Your task to perform on an android device: Empty the shopping cart on newegg. Add "beats solo 3" to the cart on newegg Image 0: 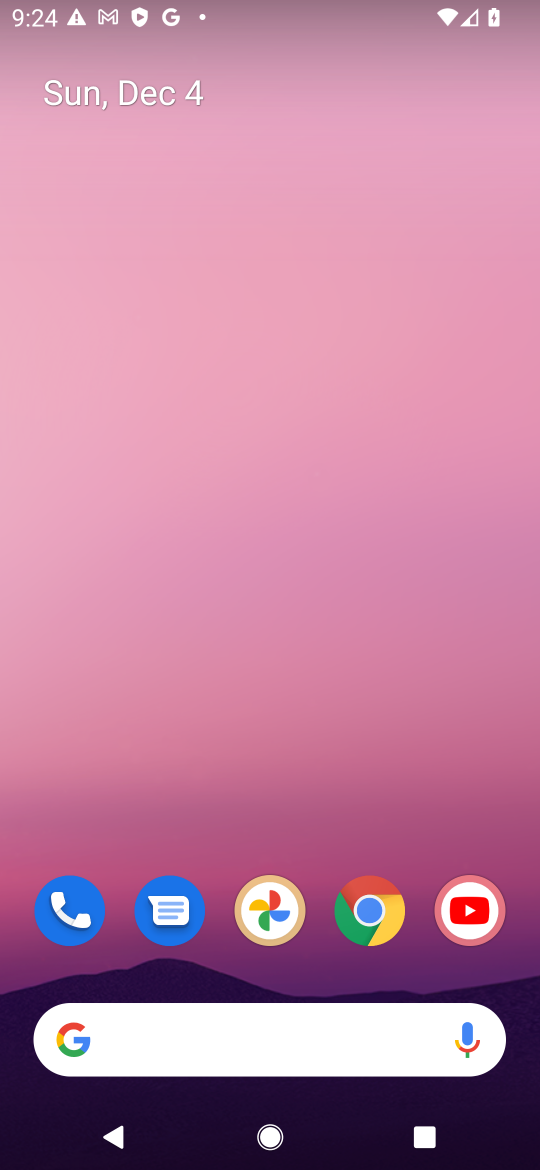
Step 0: drag from (268, 698) to (347, 70)
Your task to perform on an android device: Empty the shopping cart on newegg. Add "beats solo 3" to the cart on newegg Image 1: 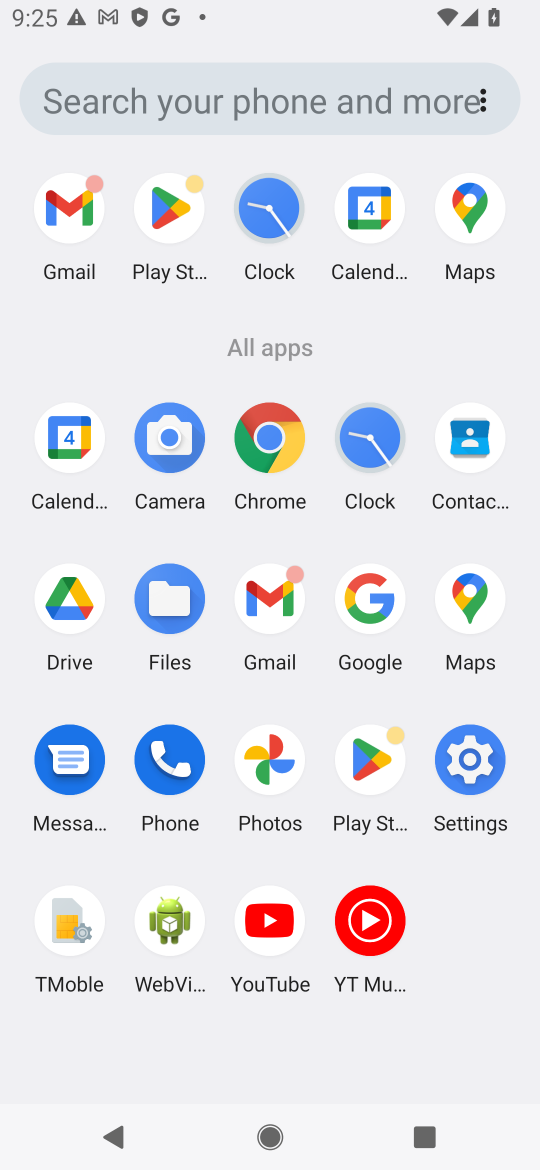
Step 1: click (275, 433)
Your task to perform on an android device: Empty the shopping cart on newegg. Add "beats solo 3" to the cart on newegg Image 2: 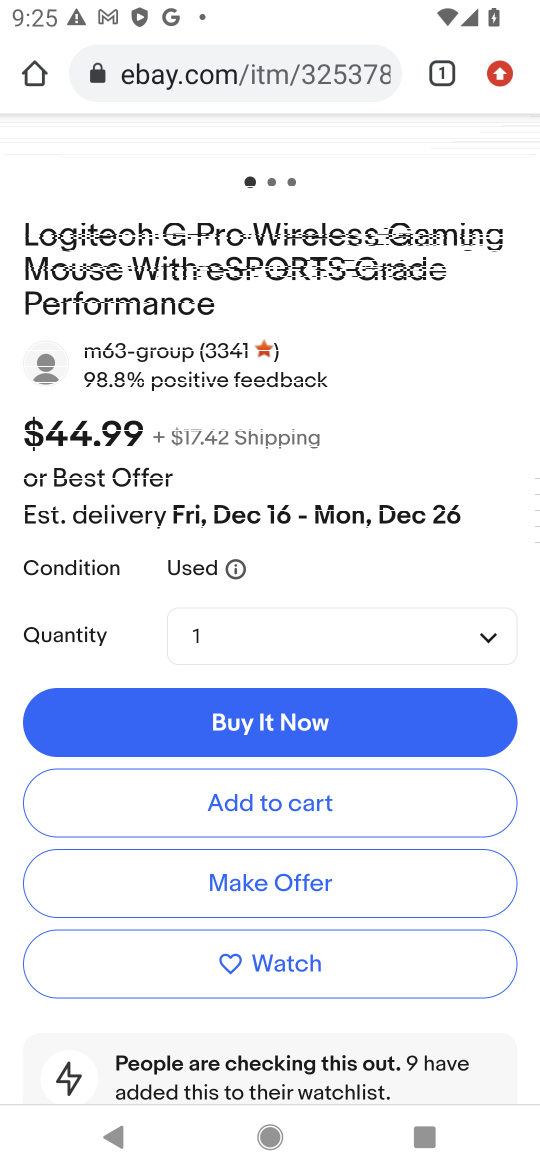
Step 2: click (178, 76)
Your task to perform on an android device: Empty the shopping cart on newegg. Add "beats solo 3" to the cart on newegg Image 3: 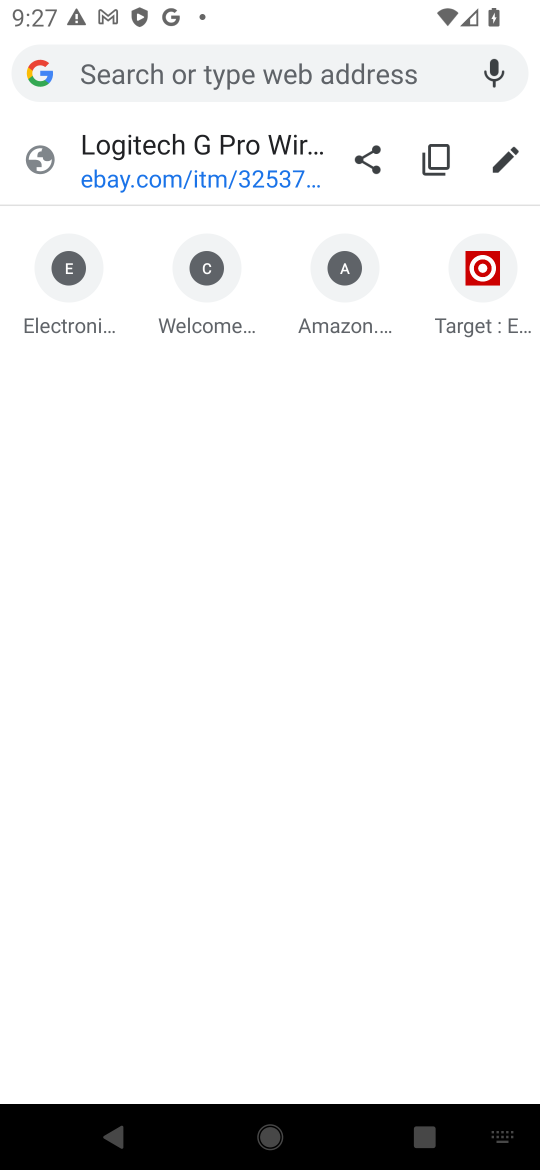
Step 3: type " newegg"
Your task to perform on an android device: Empty the shopping cart on newegg. Add "beats solo 3" to the cart on newegg Image 4: 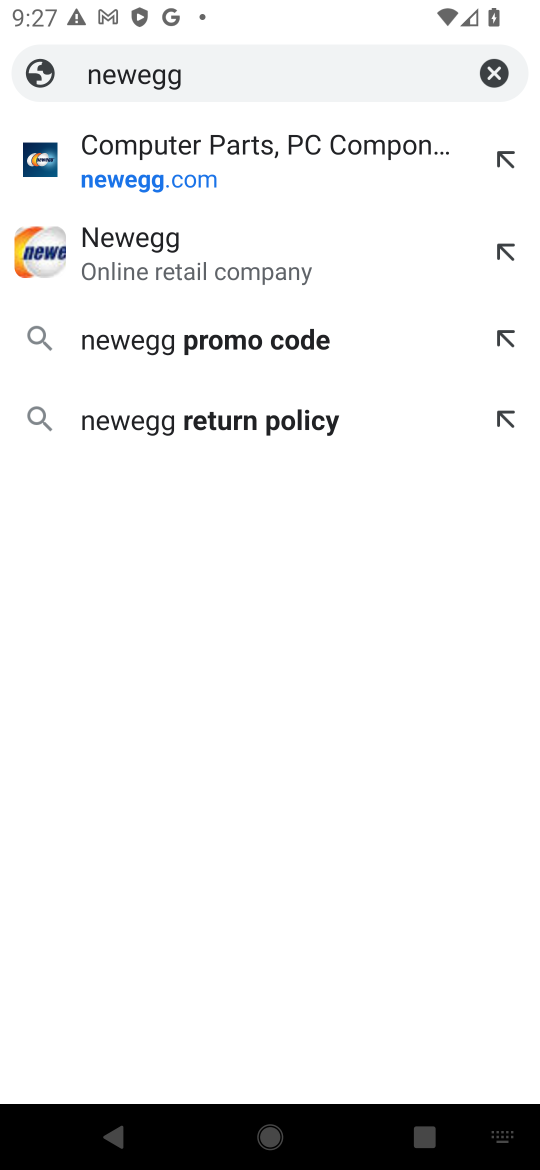
Step 4: click (146, 178)
Your task to perform on an android device: Empty the shopping cart on newegg. Add "beats solo 3" to the cart on newegg Image 5: 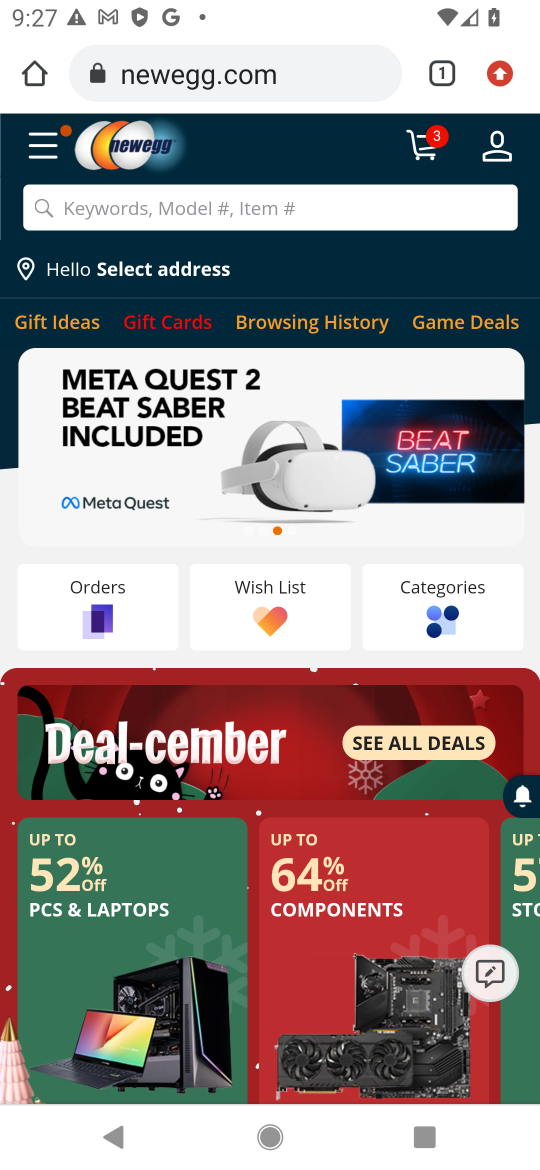
Step 5: type "beats solo 3"
Your task to perform on an android device: Empty the shopping cart on newegg. Add "beats solo 3" to the cart on newegg Image 6: 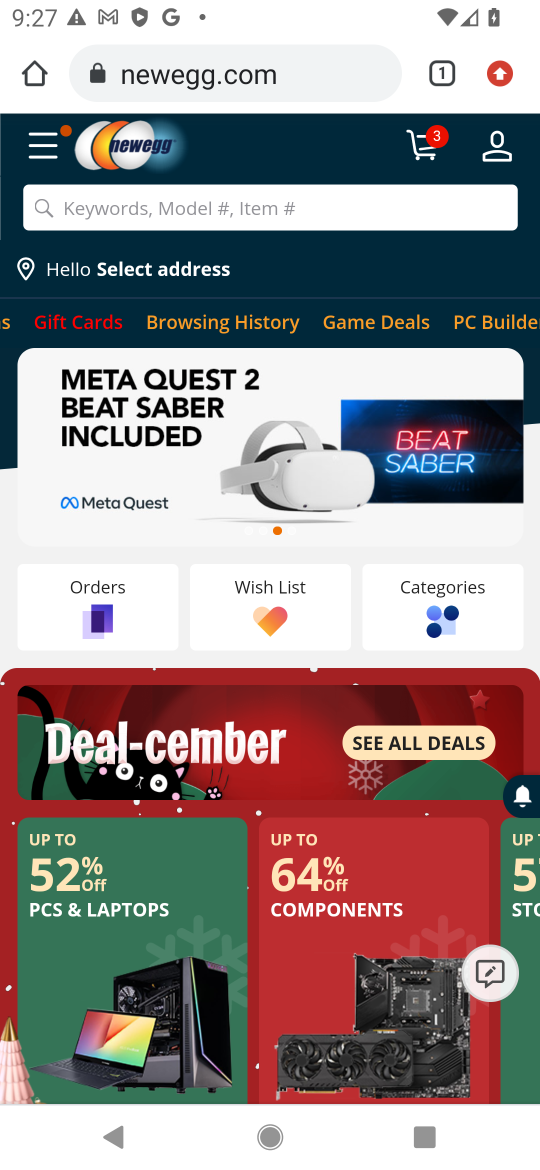
Step 6: type ""
Your task to perform on an android device: Empty the shopping cart on newegg. Add "beats solo 3" to the cart on newegg Image 7: 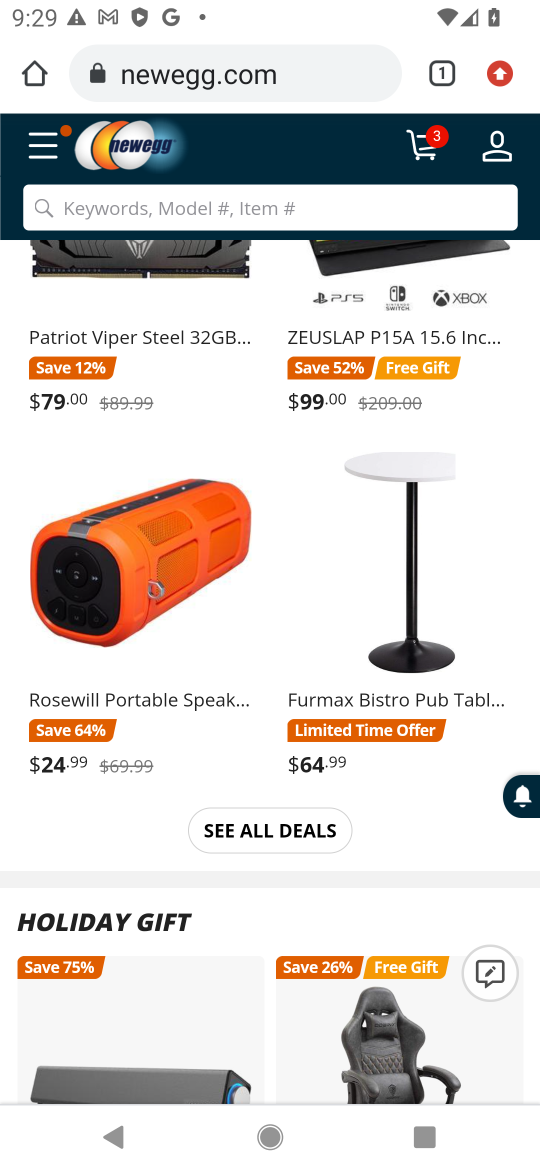
Step 7: click (203, 214)
Your task to perform on an android device: Empty the shopping cart on newegg. Add "beats solo 3" to the cart on newegg Image 8: 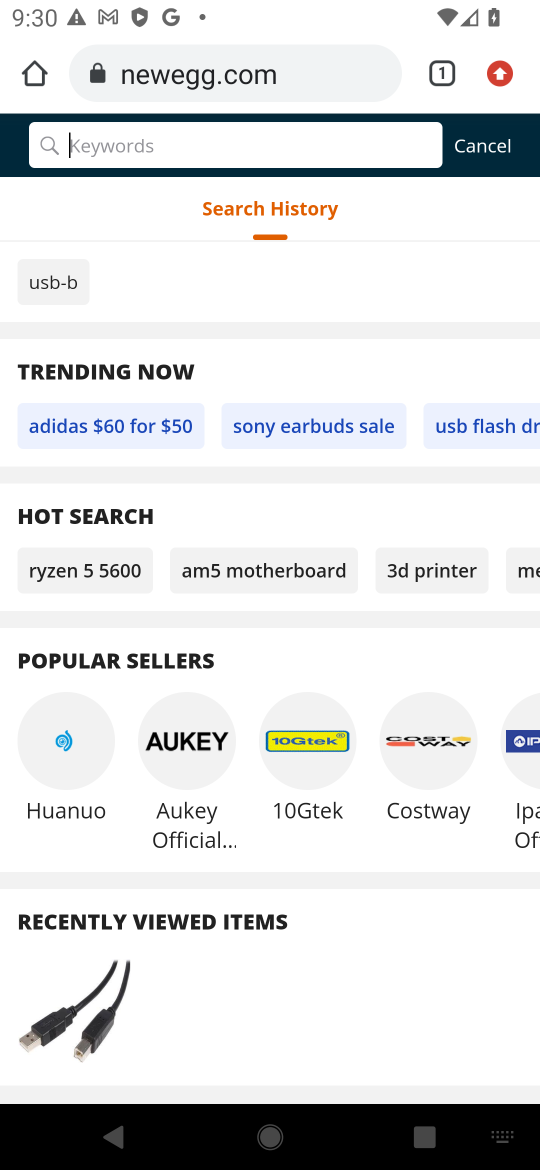
Step 8: type "beats solo 3"
Your task to perform on an android device: Empty the shopping cart on newegg. Add "beats solo 3" to the cart on newegg Image 9: 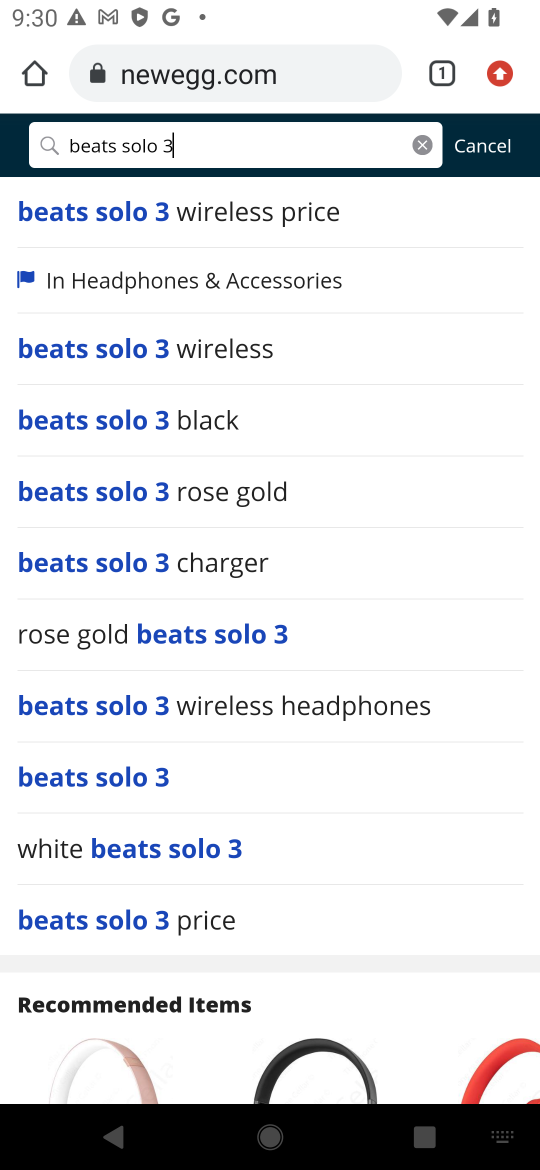
Step 9: click (121, 771)
Your task to perform on an android device: Empty the shopping cart on newegg. Add "beats solo 3" to the cart on newegg Image 10: 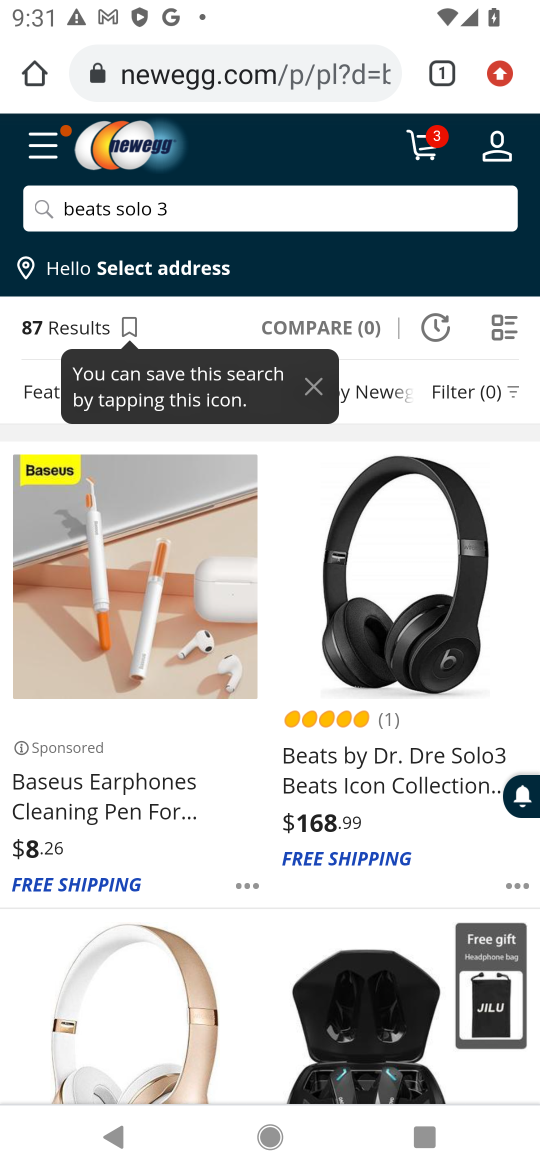
Step 10: click (418, 605)
Your task to perform on an android device: Empty the shopping cart on newegg. Add "beats solo 3" to the cart on newegg Image 11: 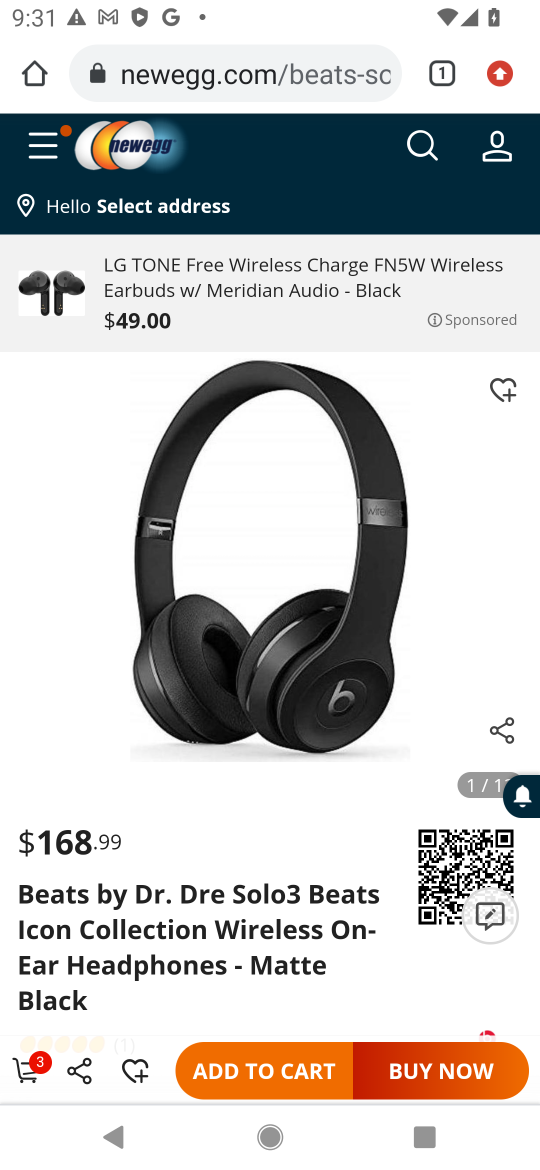
Step 11: click (254, 1079)
Your task to perform on an android device: Empty the shopping cart on newegg. Add "beats solo 3" to the cart on newegg Image 12: 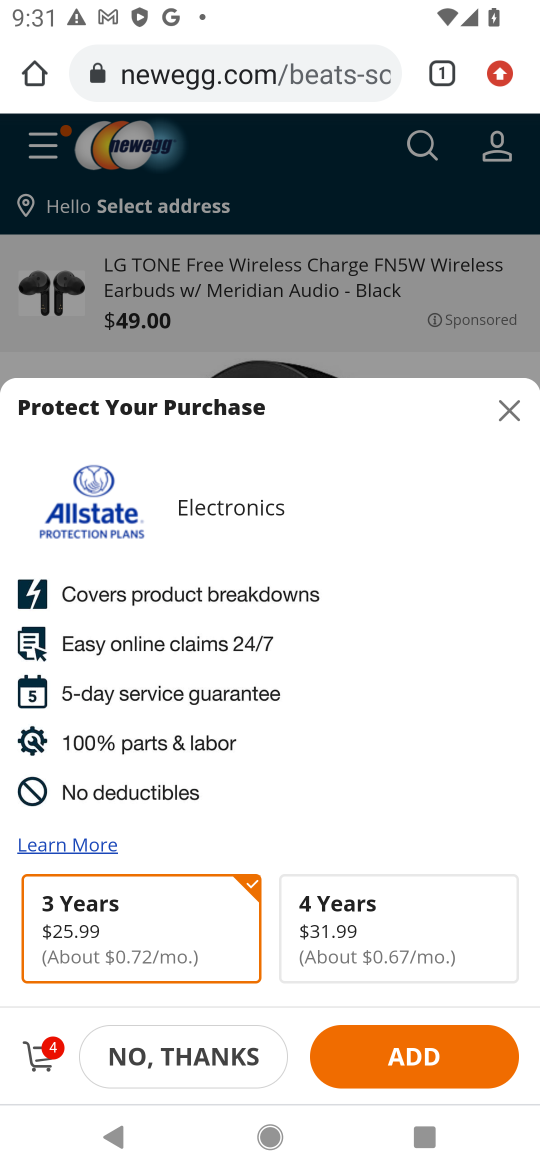
Step 12: task complete